Your task to perform on an android device: Empty the shopping cart on amazon. Add logitech g903 to the cart on amazon Image 0: 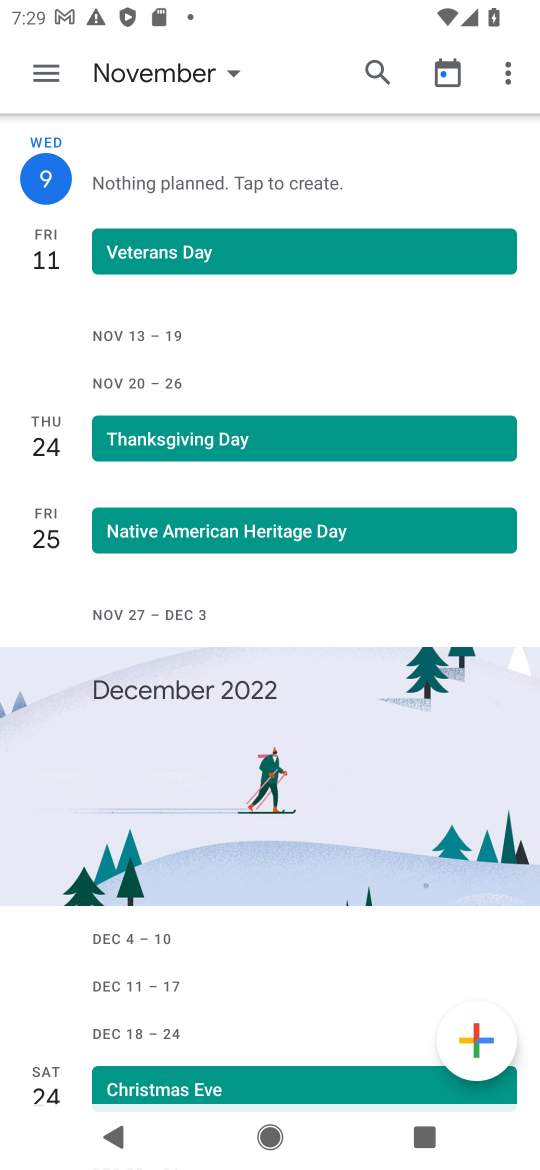
Step 0: press home button
Your task to perform on an android device: Empty the shopping cart on amazon. Add logitech g903 to the cart on amazon Image 1: 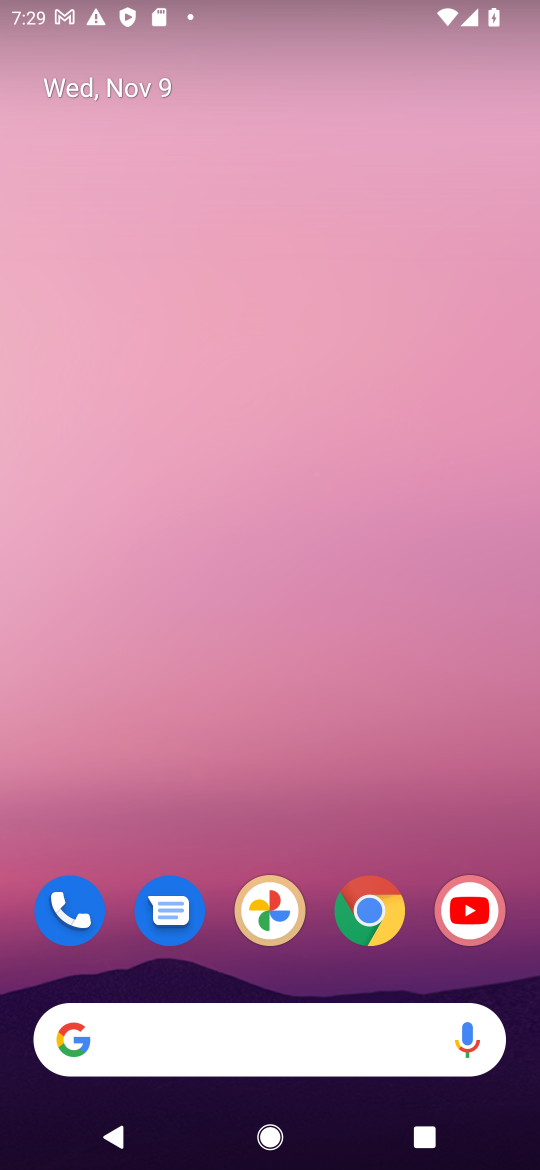
Step 1: click (375, 908)
Your task to perform on an android device: Empty the shopping cart on amazon. Add logitech g903 to the cart on amazon Image 2: 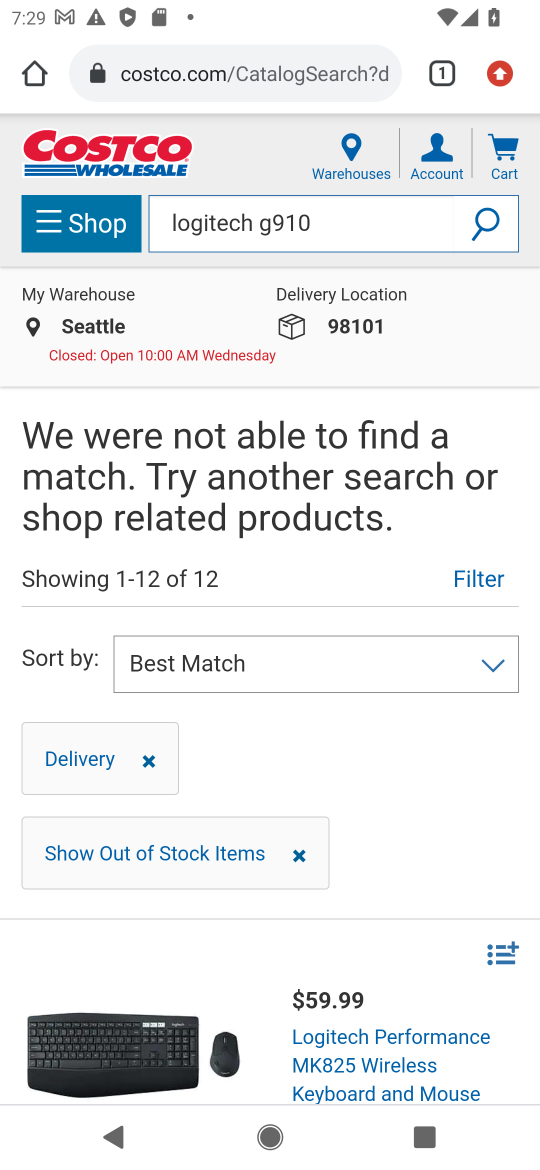
Step 2: click (210, 74)
Your task to perform on an android device: Empty the shopping cart on amazon. Add logitech g903 to the cart on amazon Image 3: 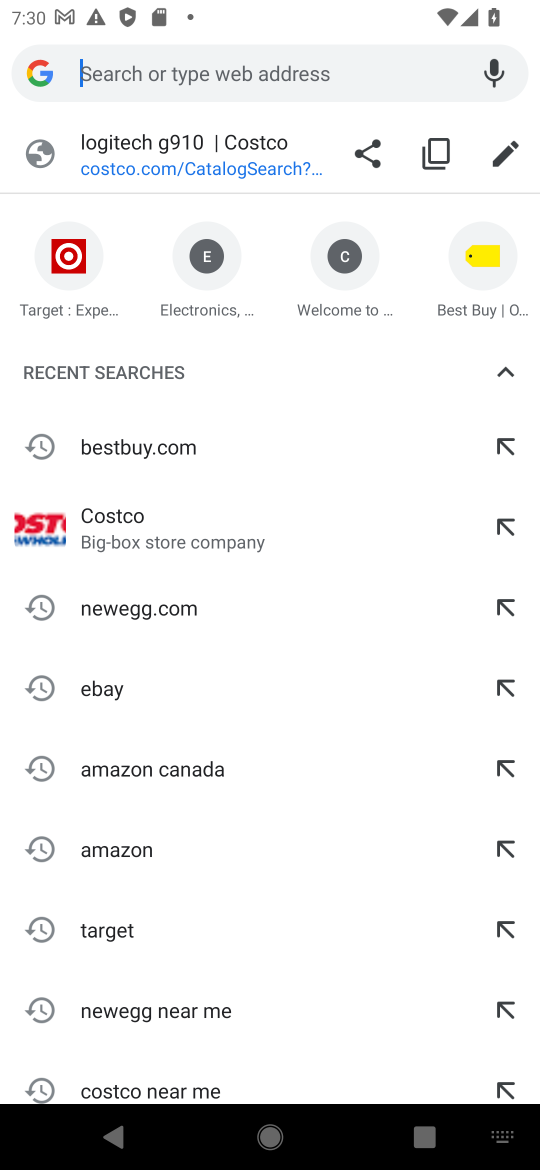
Step 3: type "amazon.com"
Your task to perform on an android device: Empty the shopping cart on amazon. Add logitech g903 to the cart on amazon Image 4: 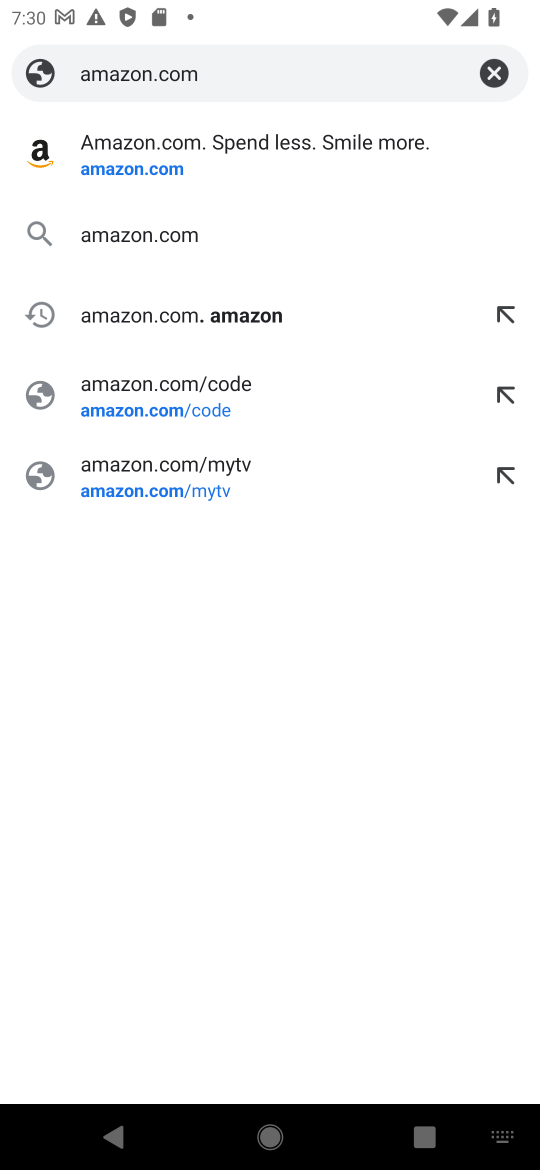
Step 4: click (136, 175)
Your task to perform on an android device: Empty the shopping cart on amazon. Add logitech g903 to the cart on amazon Image 5: 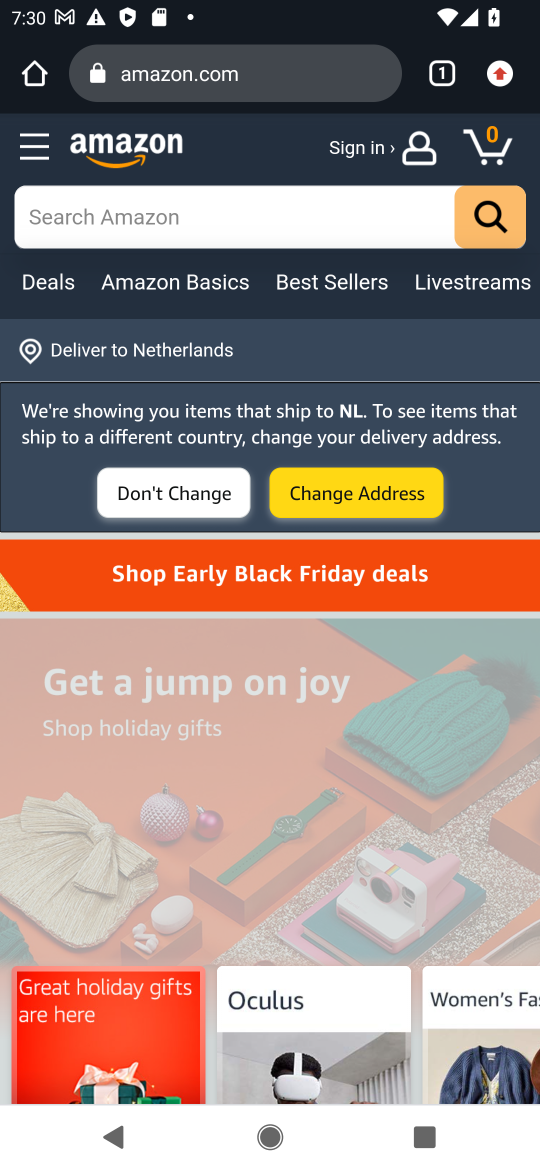
Step 5: click (494, 153)
Your task to perform on an android device: Empty the shopping cart on amazon. Add logitech g903 to the cart on amazon Image 6: 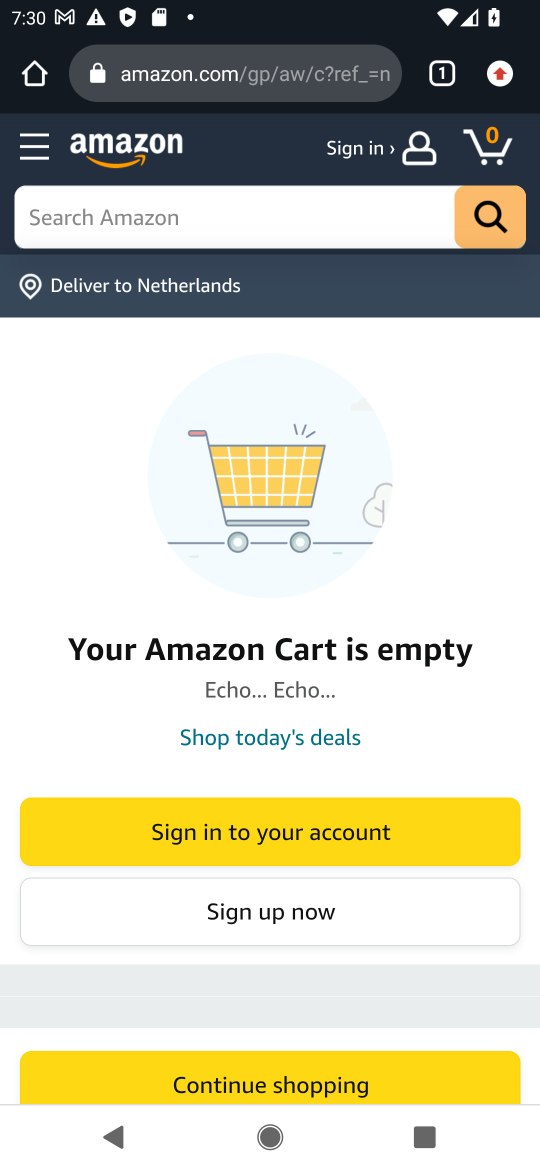
Step 6: drag from (479, 742) to (495, 482)
Your task to perform on an android device: Empty the shopping cart on amazon. Add logitech g903 to the cart on amazon Image 7: 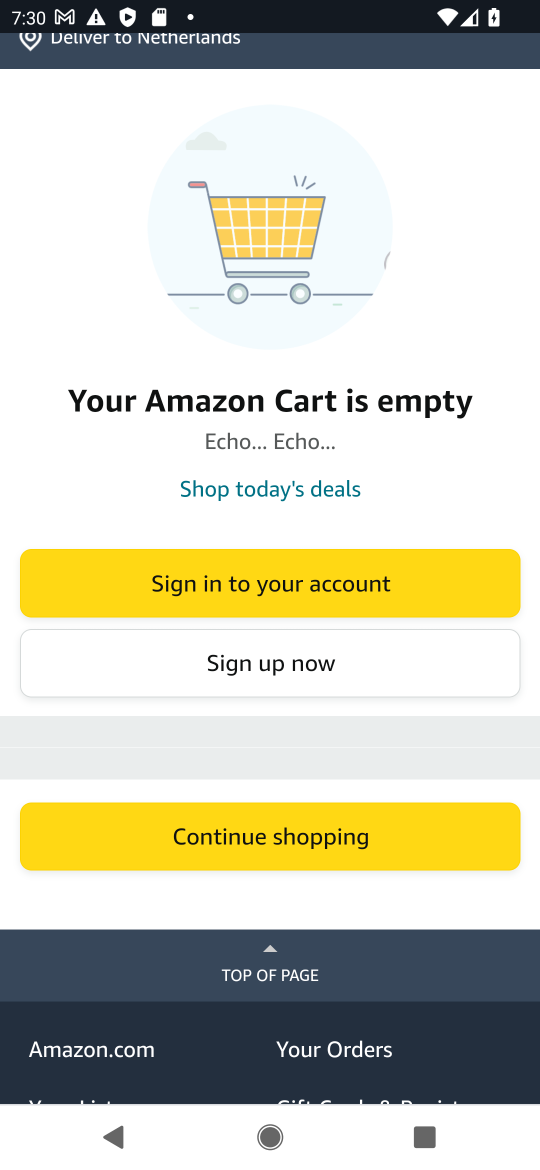
Step 7: drag from (399, 306) to (425, 804)
Your task to perform on an android device: Empty the shopping cart on amazon. Add logitech g903 to the cart on amazon Image 8: 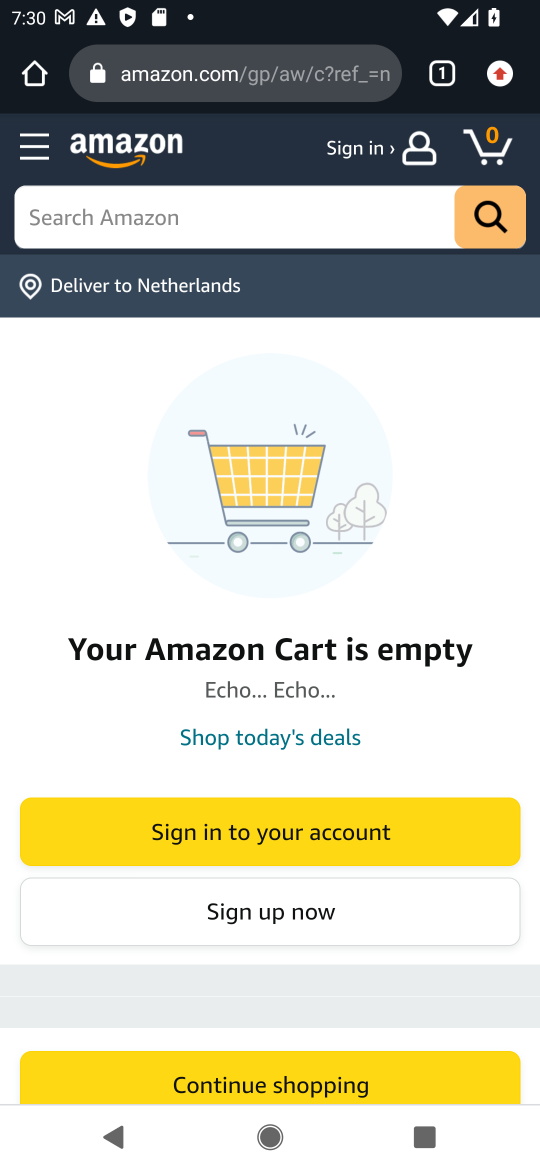
Step 8: click (280, 238)
Your task to perform on an android device: Empty the shopping cart on amazon. Add logitech g903 to the cart on amazon Image 9: 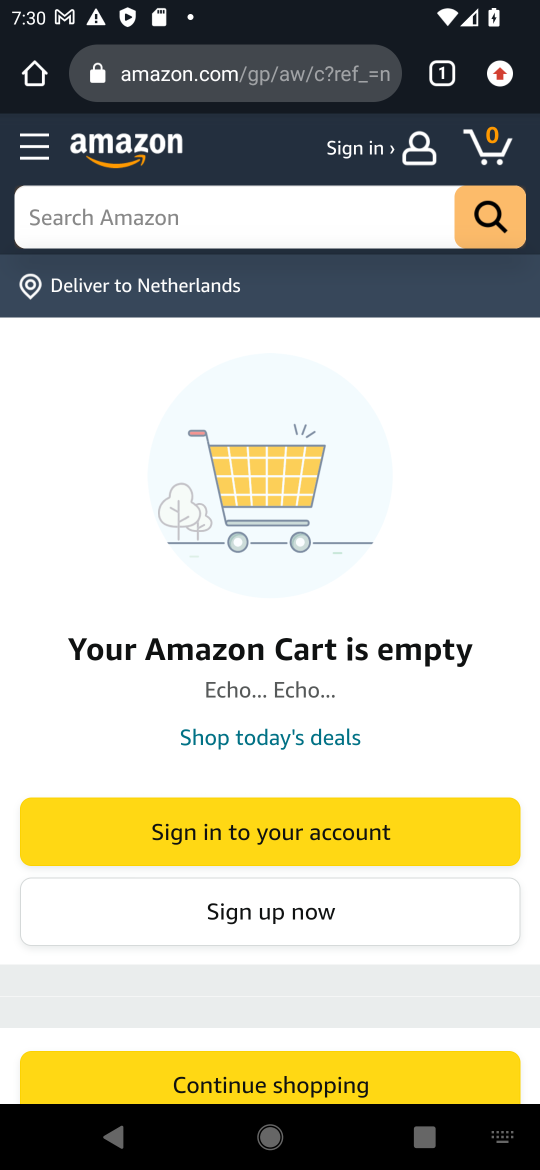
Step 9: type "logitech g903"
Your task to perform on an android device: Empty the shopping cart on amazon. Add logitech g903 to the cart on amazon Image 10: 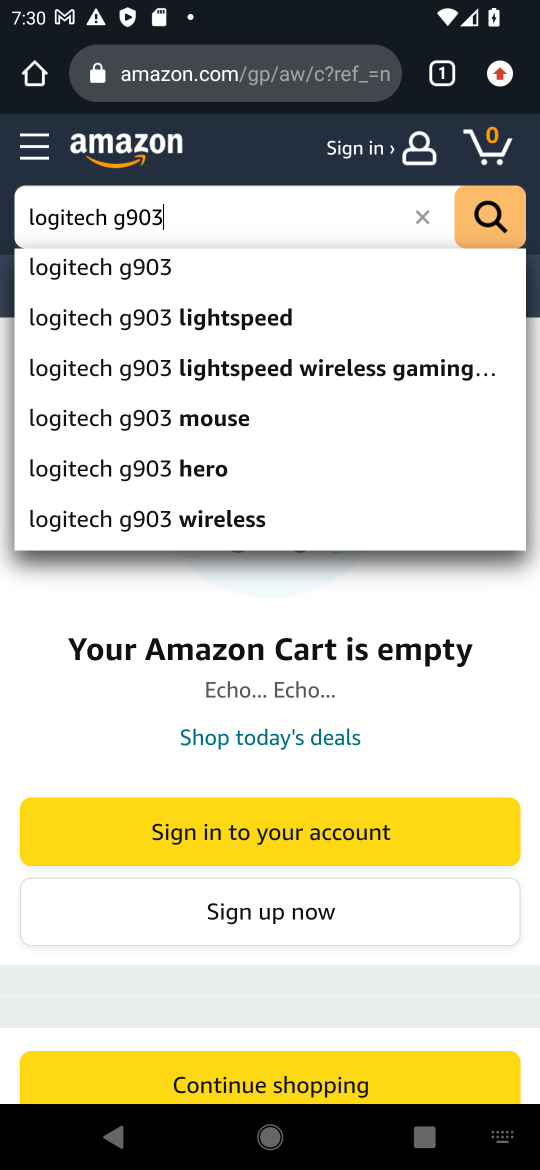
Step 10: click (131, 267)
Your task to perform on an android device: Empty the shopping cart on amazon. Add logitech g903 to the cart on amazon Image 11: 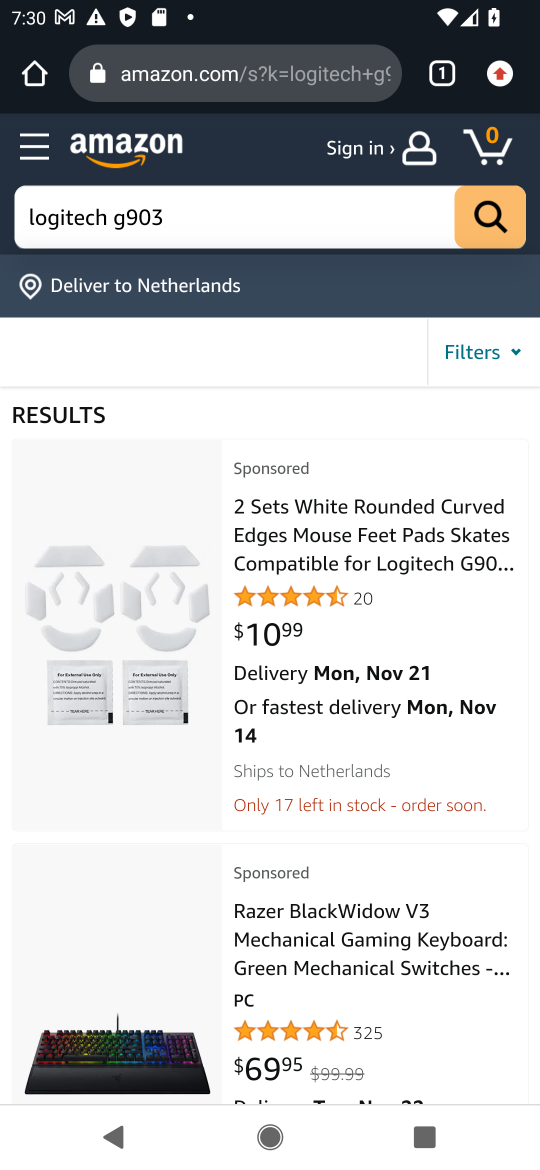
Step 11: click (160, 761)
Your task to perform on an android device: Empty the shopping cart on amazon. Add logitech g903 to the cart on amazon Image 12: 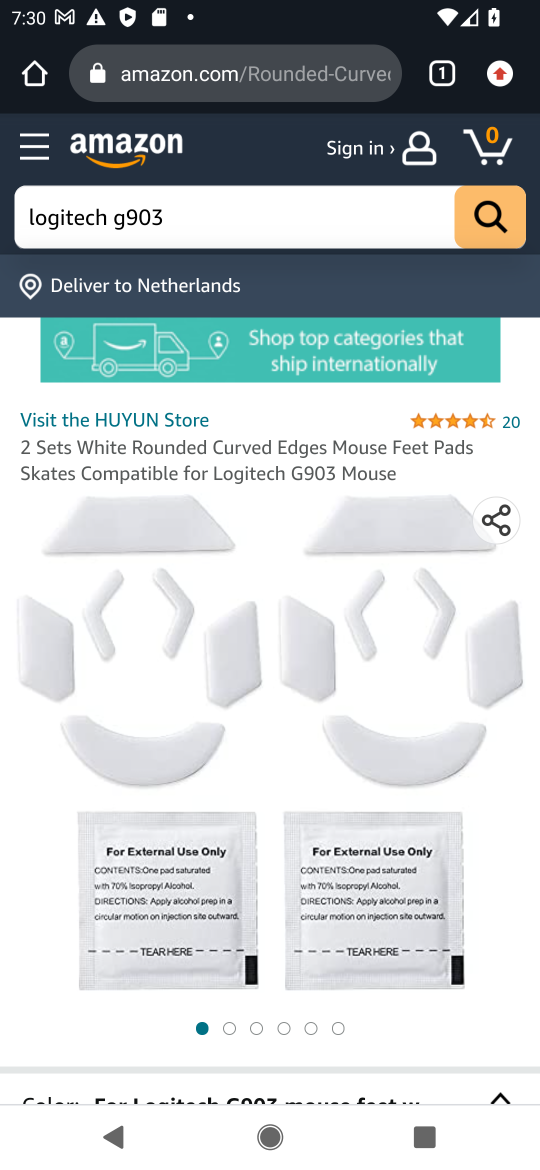
Step 12: drag from (268, 648) to (272, 194)
Your task to perform on an android device: Empty the shopping cart on amazon. Add logitech g903 to the cart on amazon Image 13: 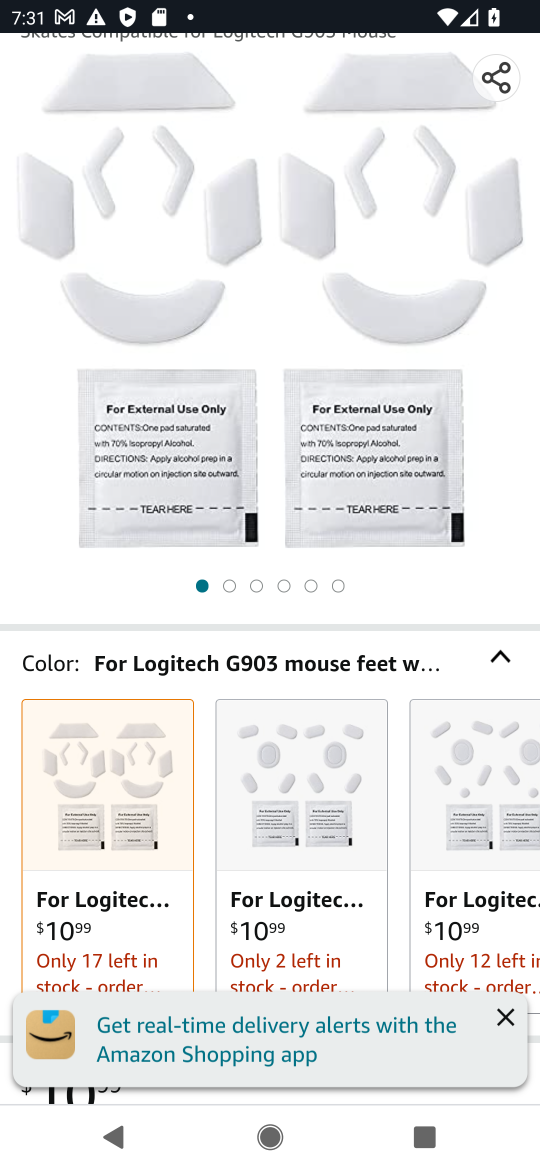
Step 13: drag from (450, 934) to (444, 468)
Your task to perform on an android device: Empty the shopping cart on amazon. Add logitech g903 to the cart on amazon Image 14: 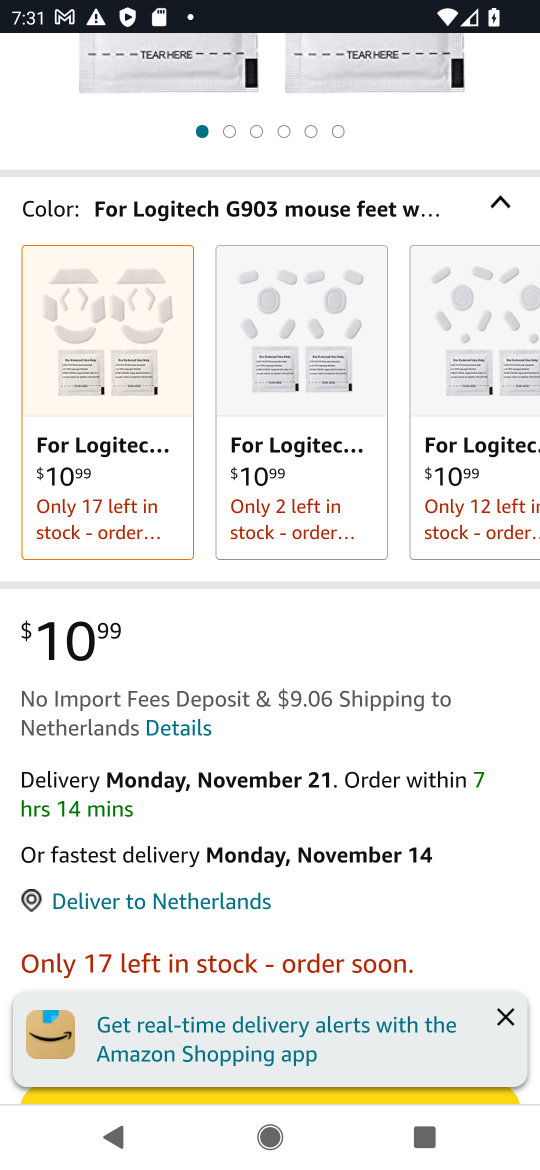
Step 14: drag from (297, 824) to (303, 467)
Your task to perform on an android device: Empty the shopping cart on amazon. Add logitech g903 to the cart on amazon Image 15: 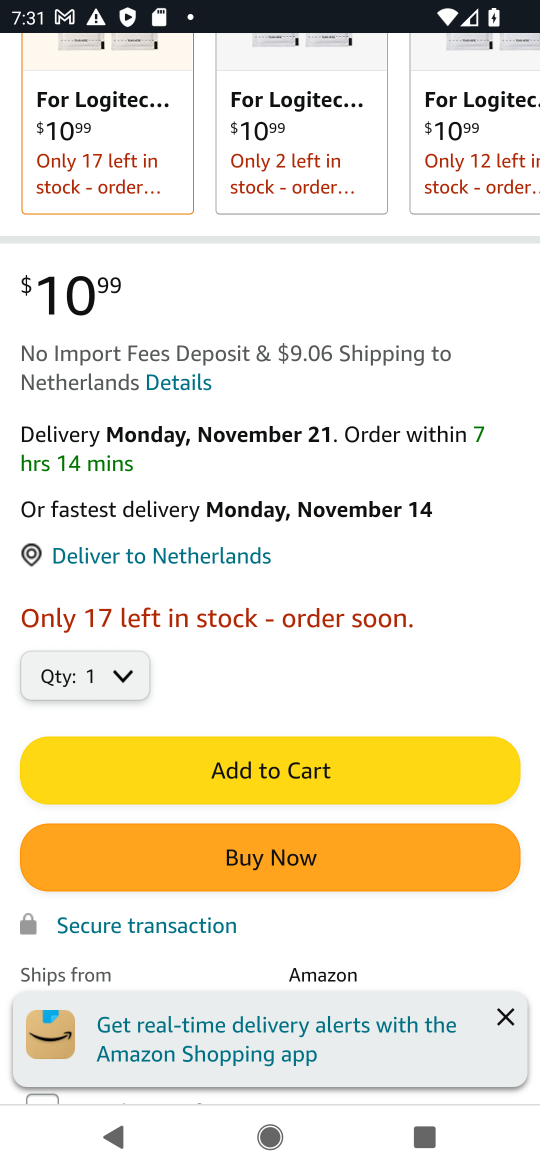
Step 15: click (286, 778)
Your task to perform on an android device: Empty the shopping cart on amazon. Add logitech g903 to the cart on amazon Image 16: 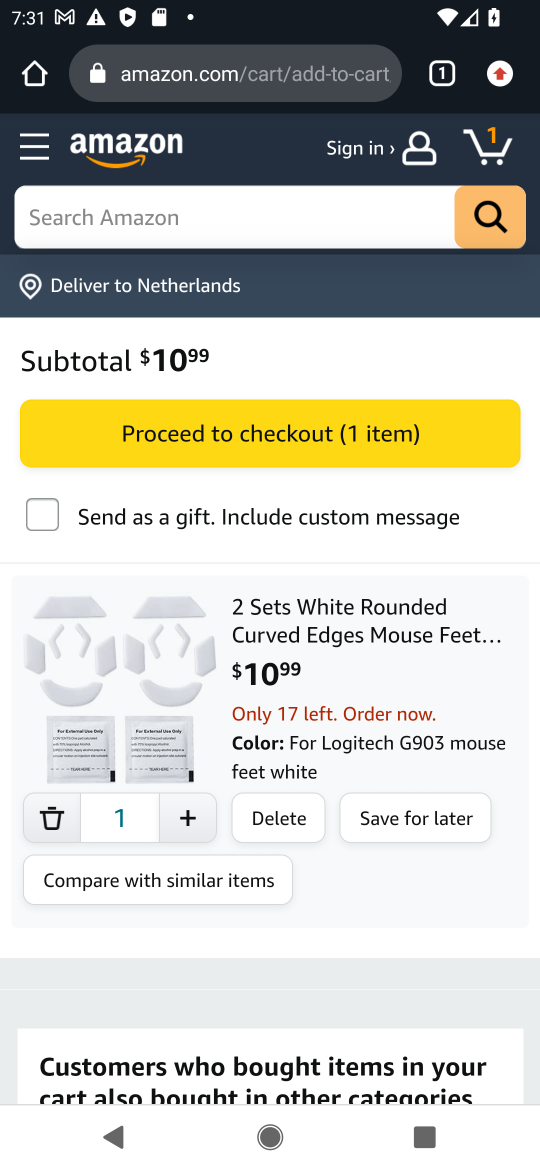
Step 16: task complete